Your task to perform on an android device: Open Chrome and go to settings Image 0: 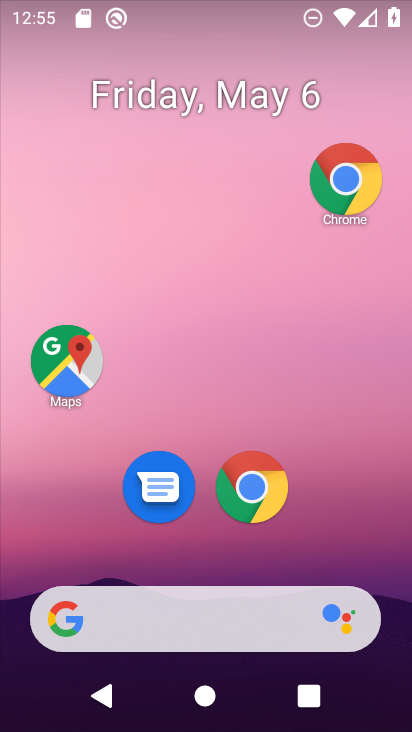
Step 0: click (274, 482)
Your task to perform on an android device: Open Chrome and go to settings Image 1: 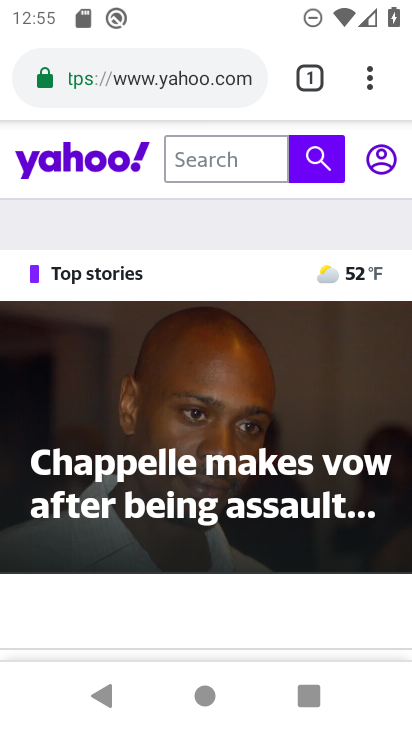
Step 1: click (361, 87)
Your task to perform on an android device: Open Chrome and go to settings Image 2: 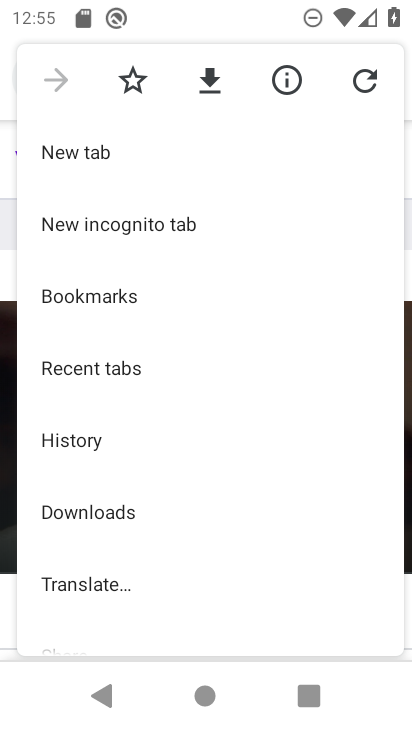
Step 2: drag from (182, 531) to (172, 386)
Your task to perform on an android device: Open Chrome and go to settings Image 3: 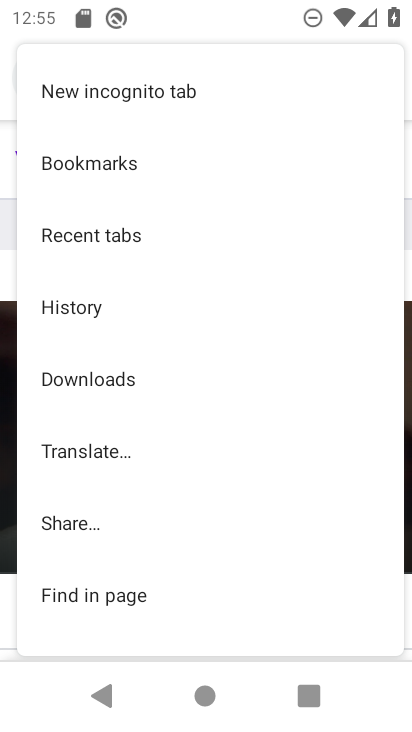
Step 3: drag from (212, 566) to (239, 305)
Your task to perform on an android device: Open Chrome and go to settings Image 4: 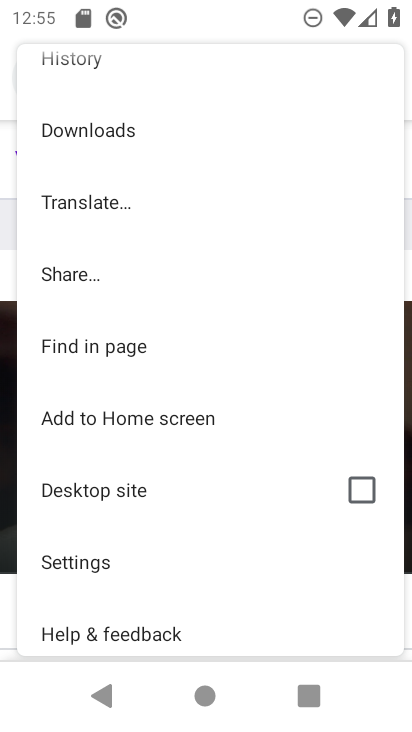
Step 4: click (220, 567)
Your task to perform on an android device: Open Chrome and go to settings Image 5: 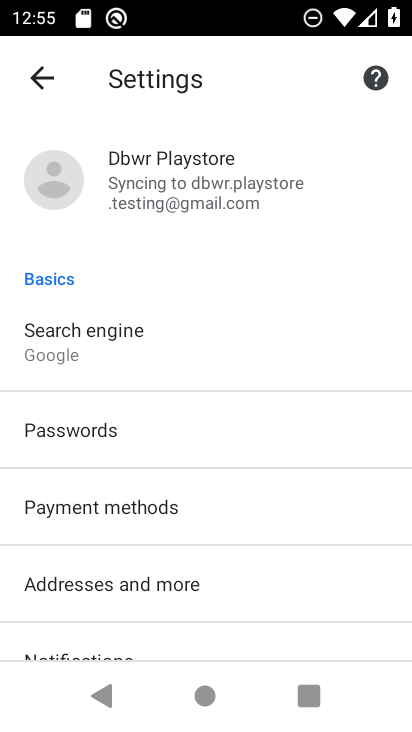
Step 5: task complete